Your task to perform on an android device: turn smart compose on in the gmail app Image 0: 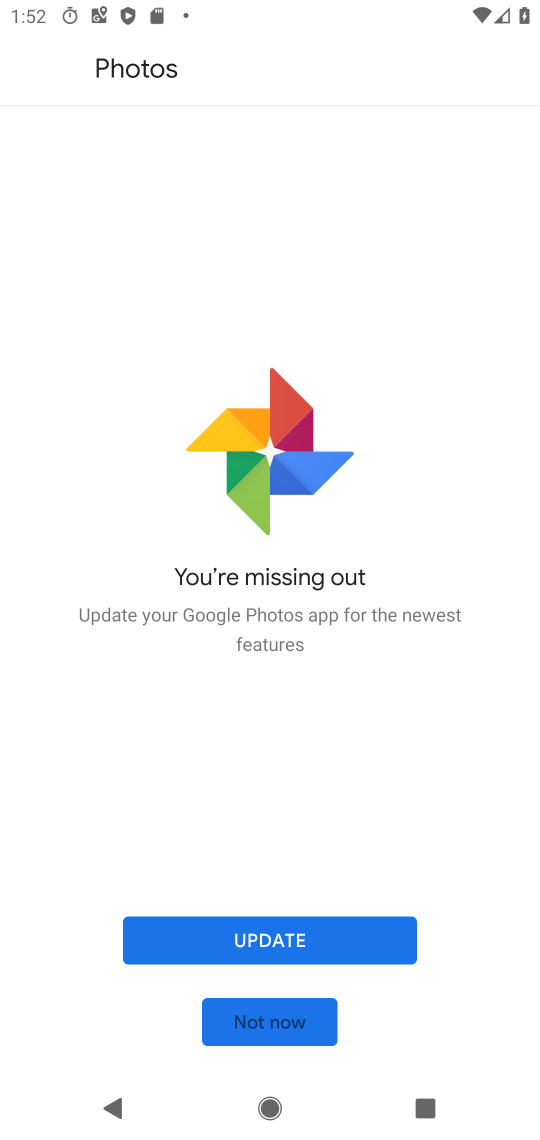
Step 0: press home button
Your task to perform on an android device: turn smart compose on in the gmail app Image 1: 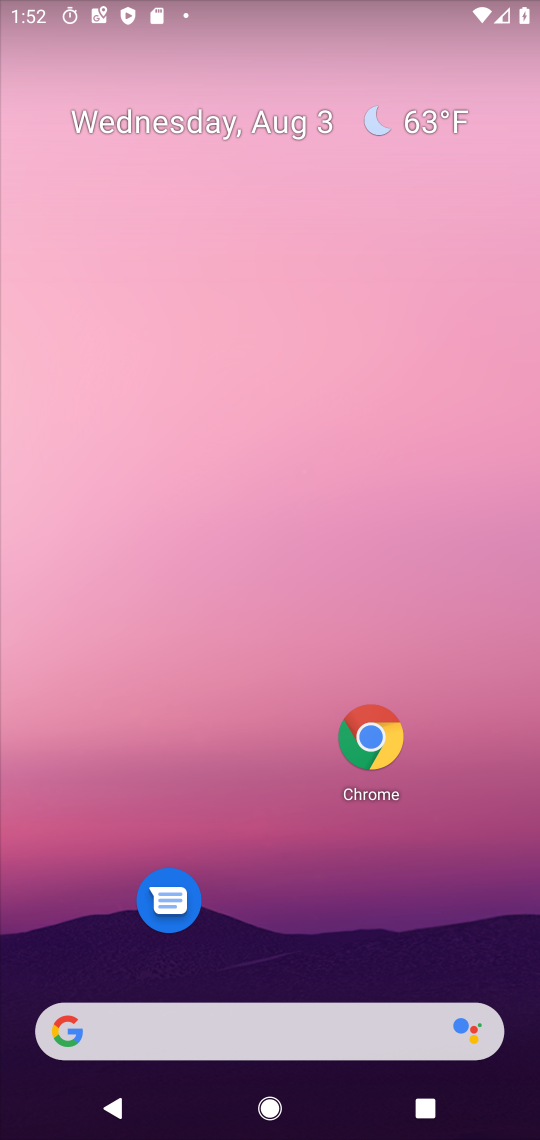
Step 1: drag from (292, 823) to (278, 190)
Your task to perform on an android device: turn smart compose on in the gmail app Image 2: 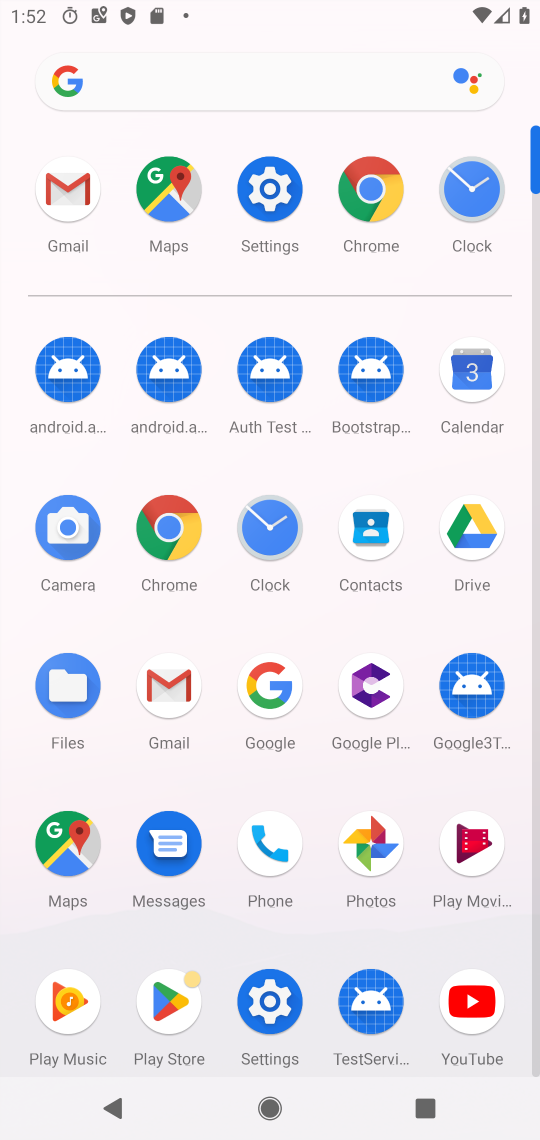
Step 2: click (172, 689)
Your task to perform on an android device: turn smart compose on in the gmail app Image 3: 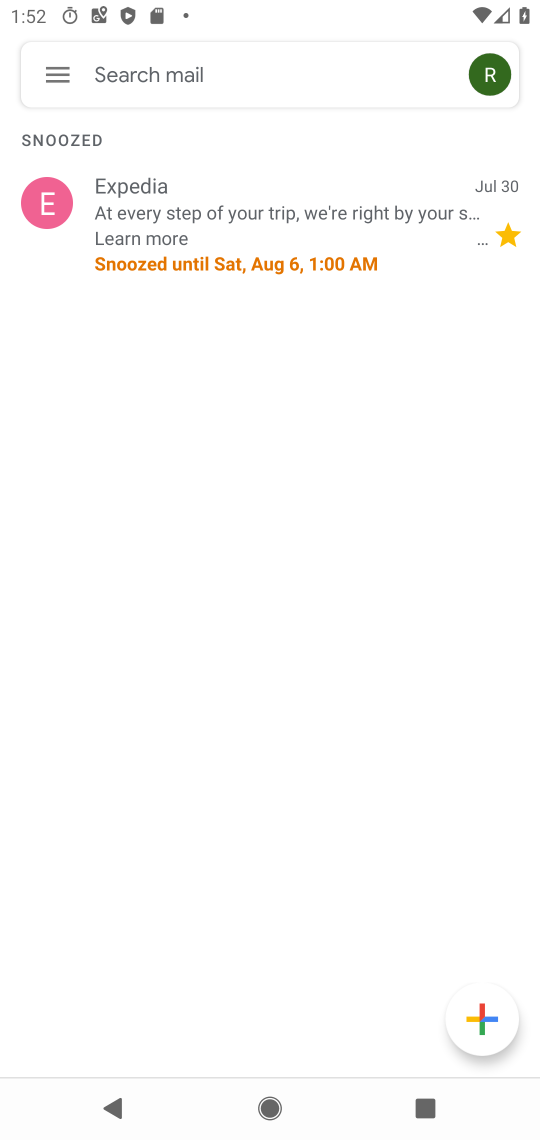
Step 3: click (49, 79)
Your task to perform on an android device: turn smart compose on in the gmail app Image 4: 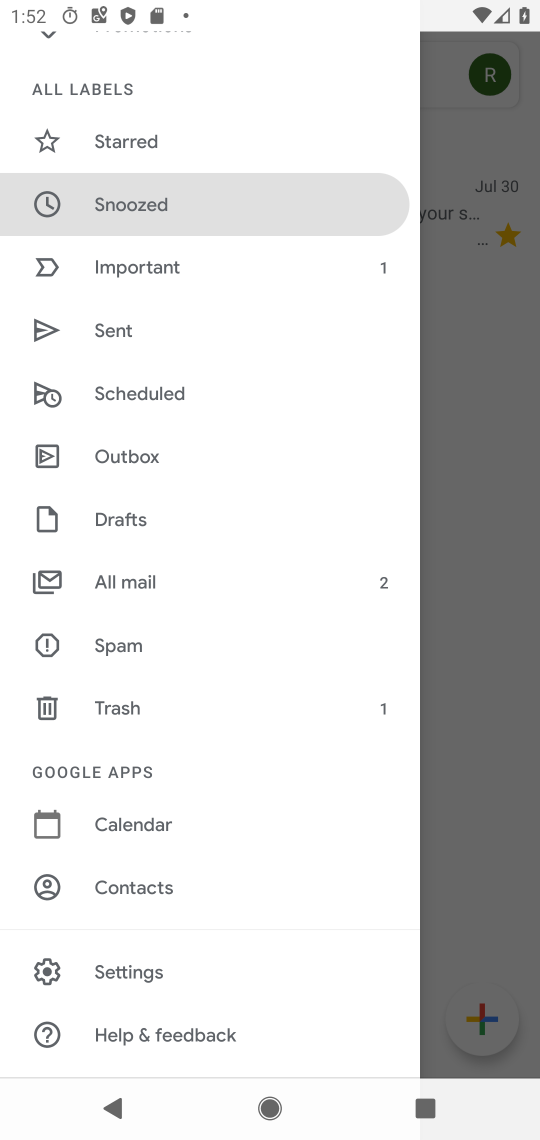
Step 4: click (113, 982)
Your task to perform on an android device: turn smart compose on in the gmail app Image 5: 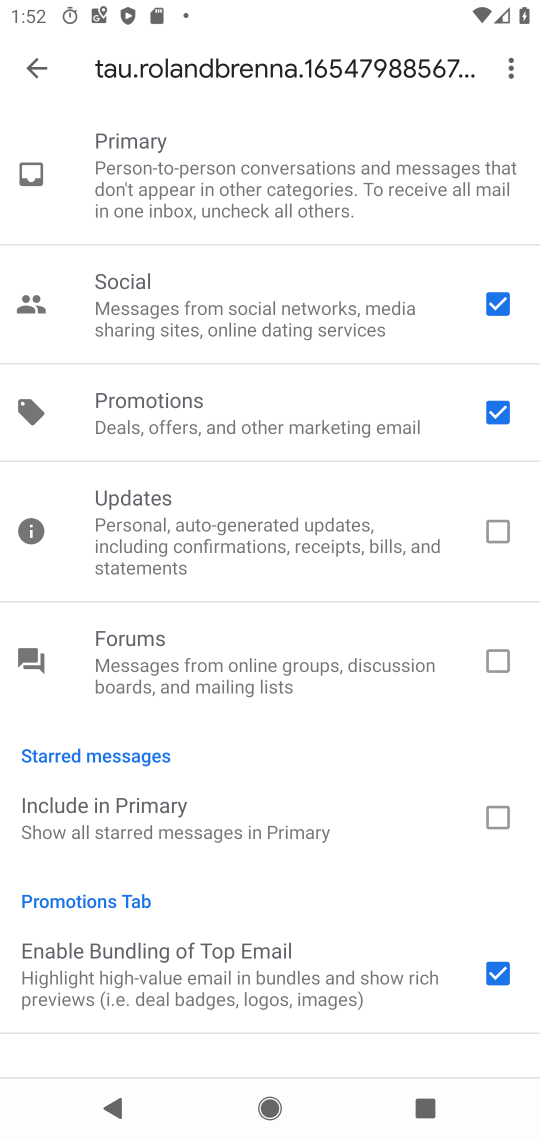
Step 5: drag from (199, 197) to (203, 1029)
Your task to perform on an android device: turn smart compose on in the gmail app Image 6: 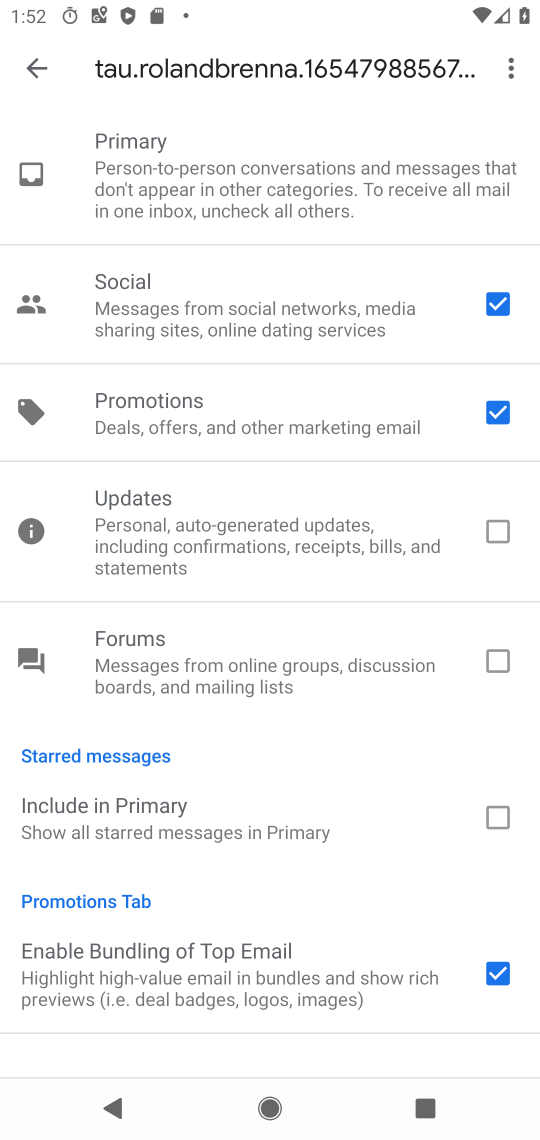
Step 6: click (34, 76)
Your task to perform on an android device: turn smart compose on in the gmail app Image 7: 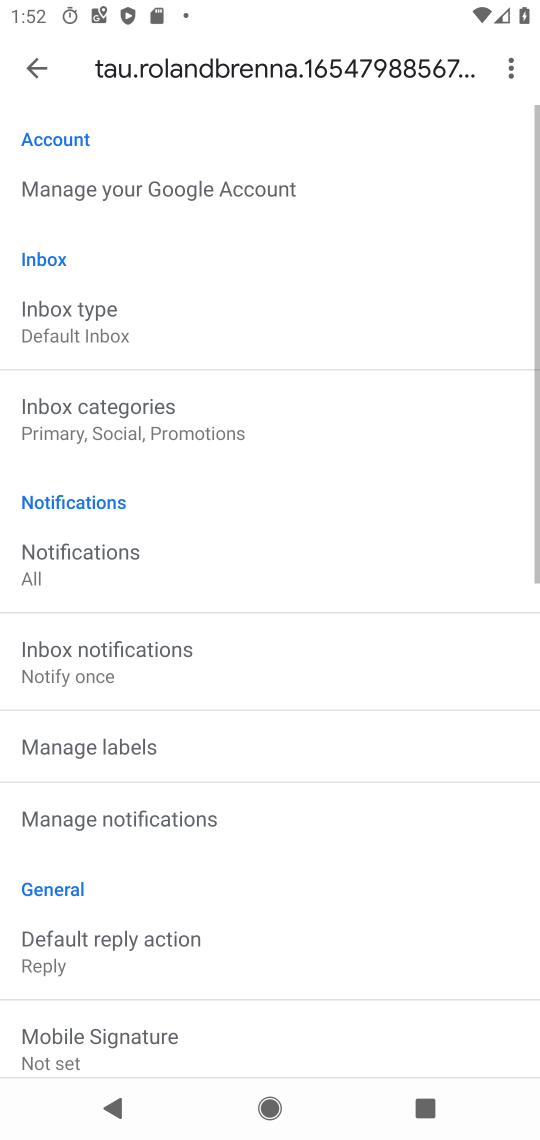
Step 7: task complete